Your task to perform on an android device: What's on my calendar today? Image 0: 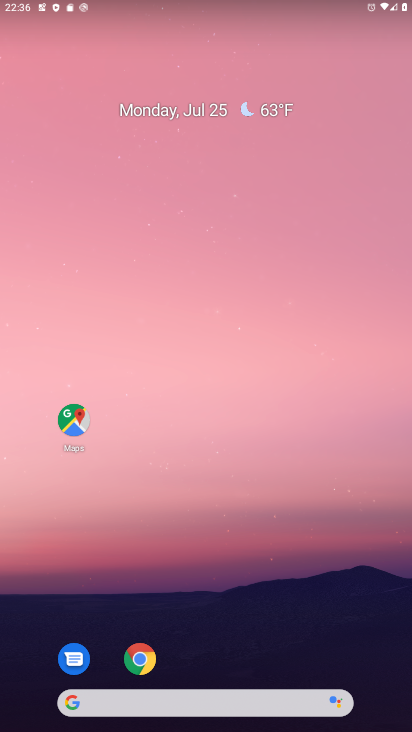
Step 0: drag from (190, 555) to (186, 77)
Your task to perform on an android device: What's on my calendar today? Image 1: 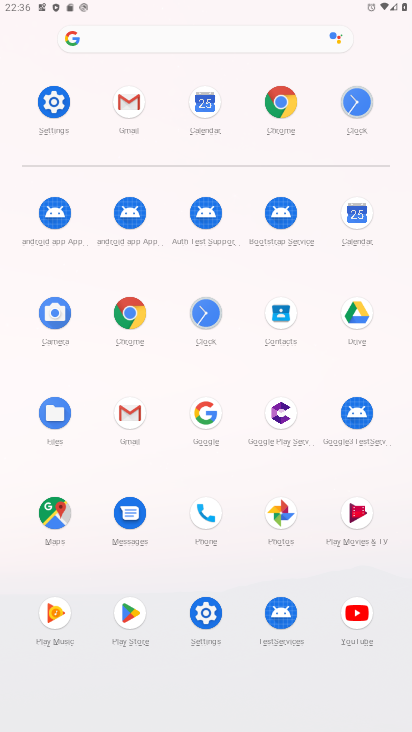
Step 1: click (354, 216)
Your task to perform on an android device: What's on my calendar today? Image 2: 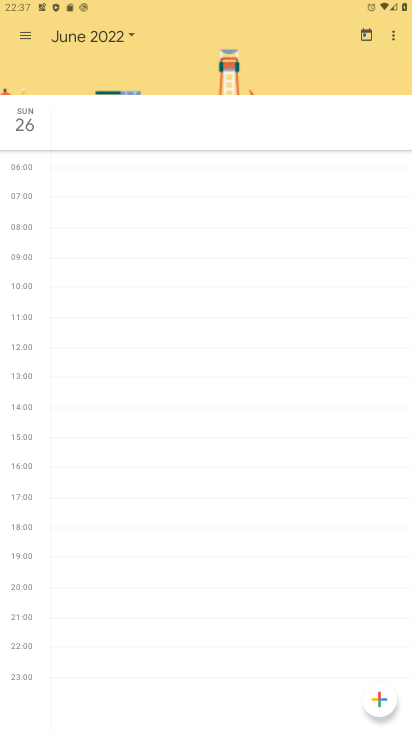
Step 2: click (26, 31)
Your task to perform on an android device: What's on my calendar today? Image 3: 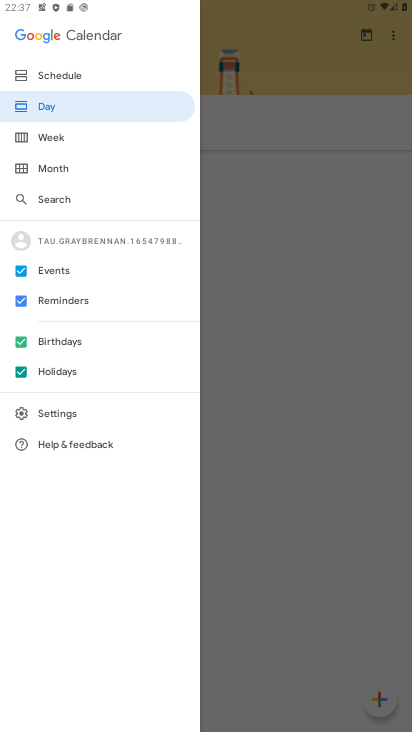
Step 3: click (56, 108)
Your task to perform on an android device: What's on my calendar today? Image 4: 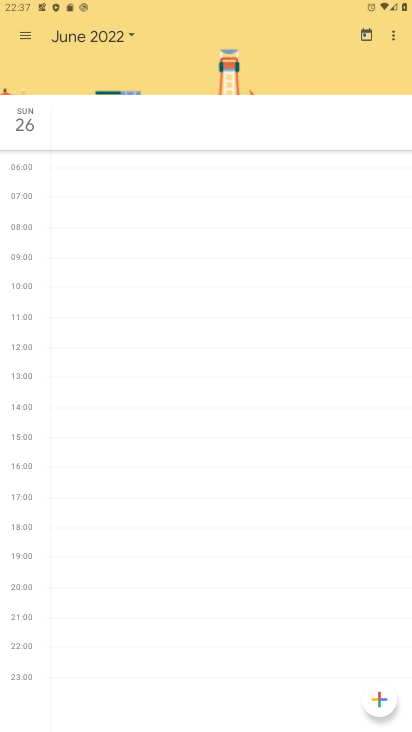
Step 4: task complete